Your task to perform on an android device: open a bookmark in the chrome app Image 0: 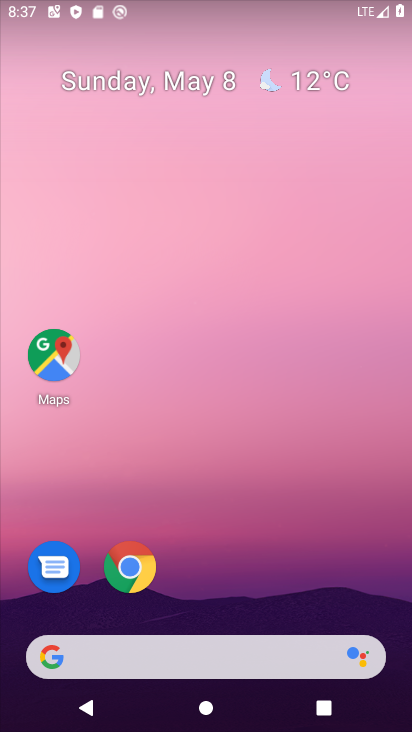
Step 0: click (138, 576)
Your task to perform on an android device: open a bookmark in the chrome app Image 1: 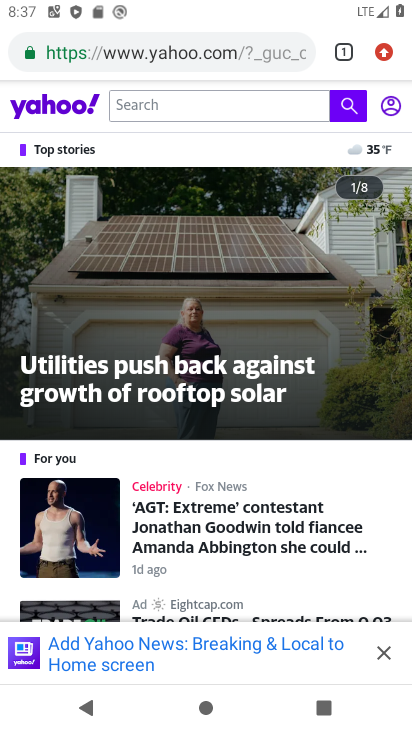
Step 1: drag from (387, 50) to (238, 269)
Your task to perform on an android device: open a bookmark in the chrome app Image 2: 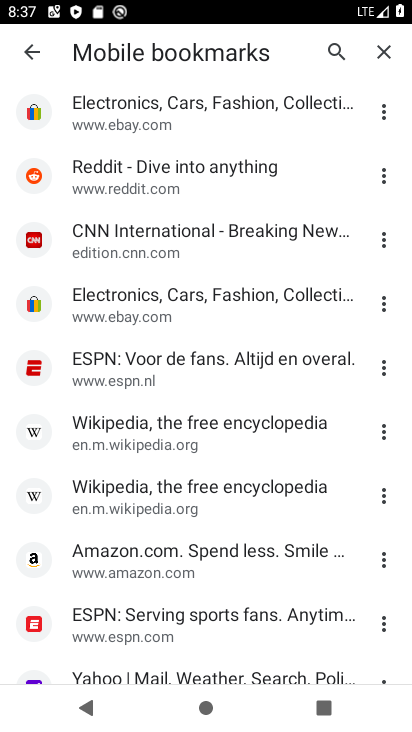
Step 2: click (197, 310)
Your task to perform on an android device: open a bookmark in the chrome app Image 3: 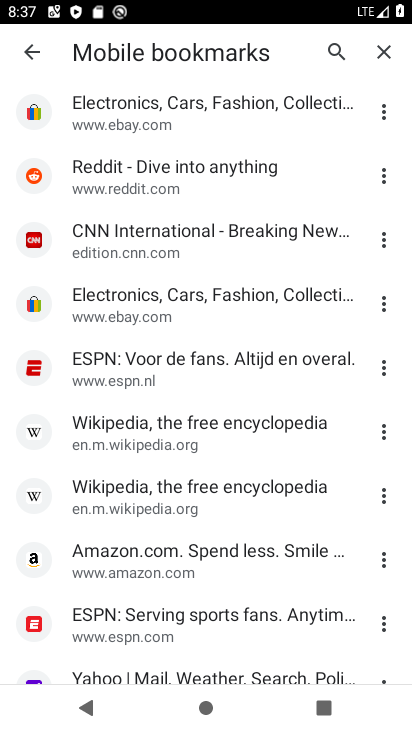
Step 3: task complete